Your task to perform on an android device: check android version Image 0: 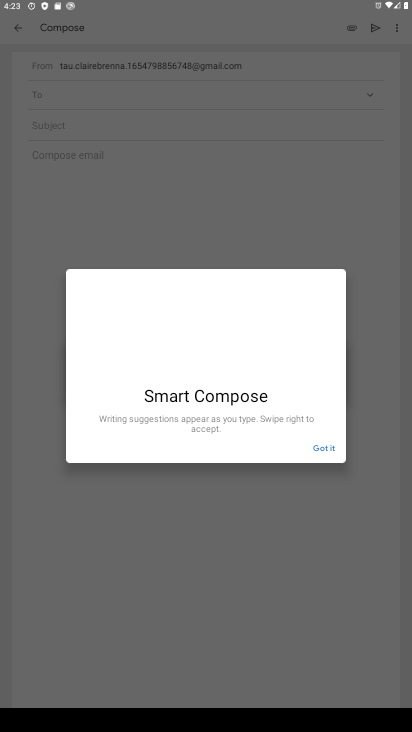
Step 0: press home button
Your task to perform on an android device: check android version Image 1: 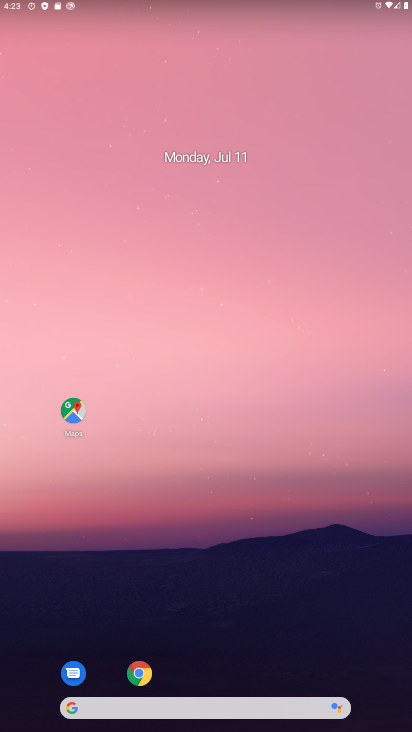
Step 1: drag from (180, 631) to (206, 127)
Your task to perform on an android device: check android version Image 2: 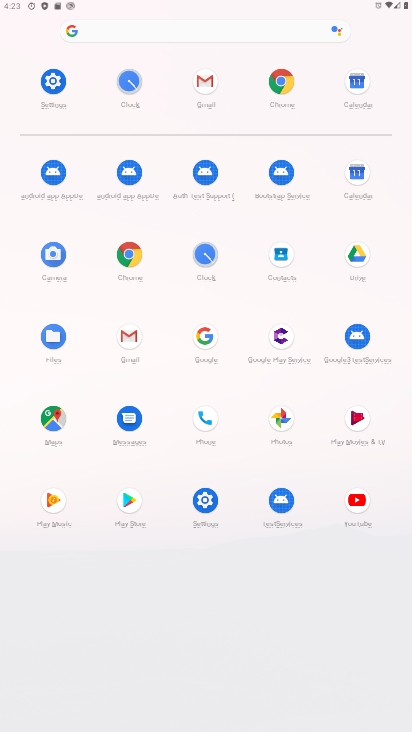
Step 2: click (210, 502)
Your task to perform on an android device: check android version Image 3: 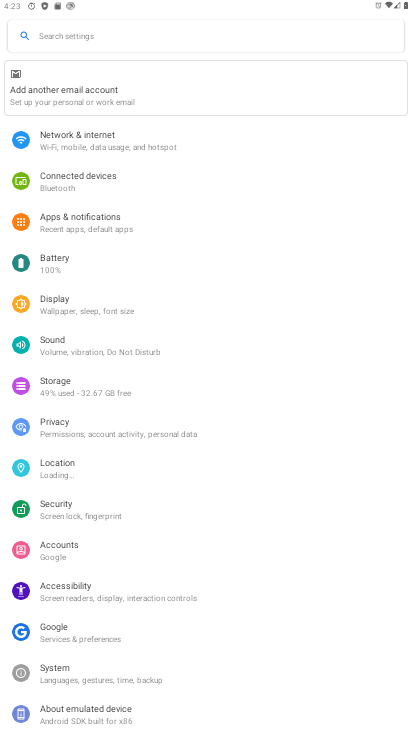
Step 3: drag from (126, 542) to (109, 212)
Your task to perform on an android device: check android version Image 4: 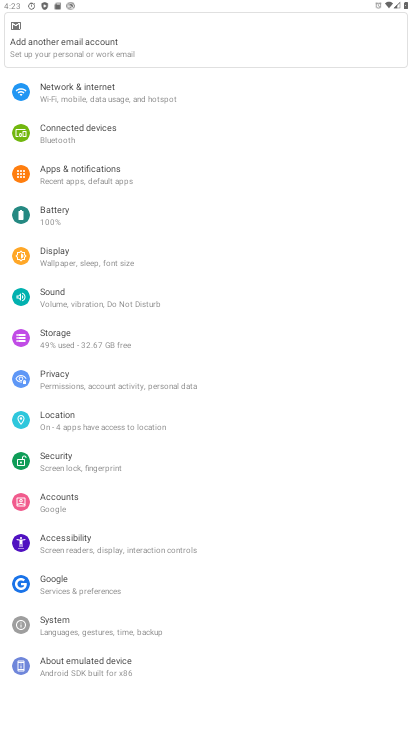
Step 4: drag from (156, 240) to (171, 478)
Your task to perform on an android device: check android version Image 5: 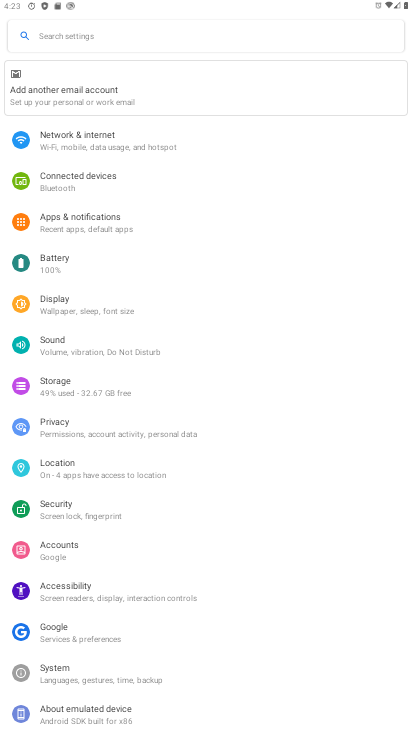
Step 5: drag from (197, 557) to (204, 262)
Your task to perform on an android device: check android version Image 6: 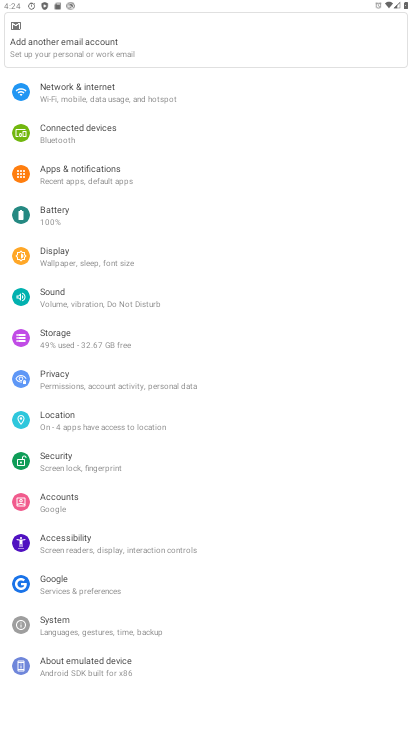
Step 6: click (85, 666)
Your task to perform on an android device: check android version Image 7: 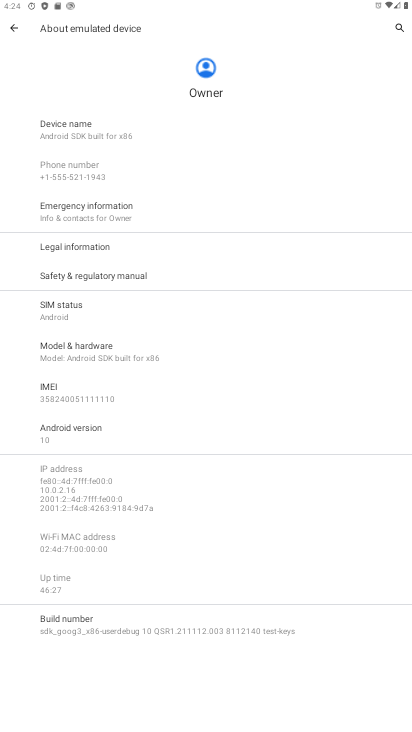
Step 7: click (108, 433)
Your task to perform on an android device: check android version Image 8: 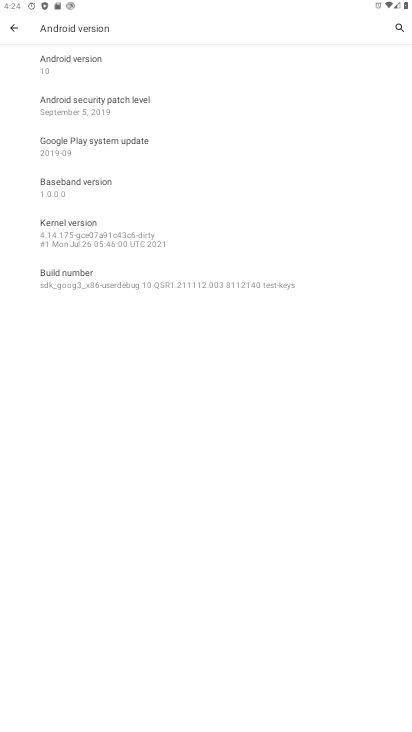
Step 8: task complete